Your task to perform on an android device: What's the weather? Image 0: 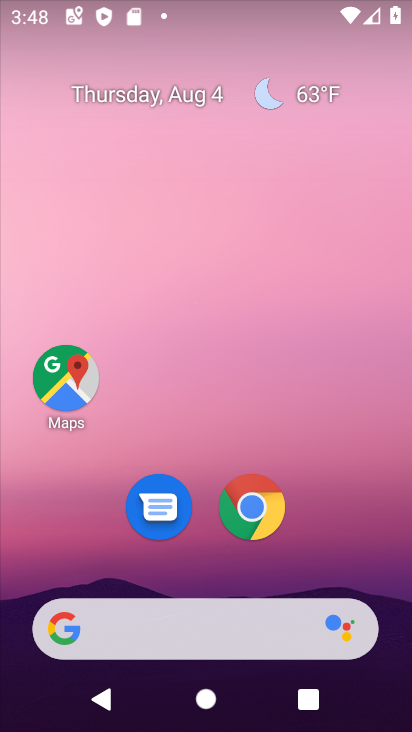
Step 0: click (109, 620)
Your task to perform on an android device: What's the weather? Image 1: 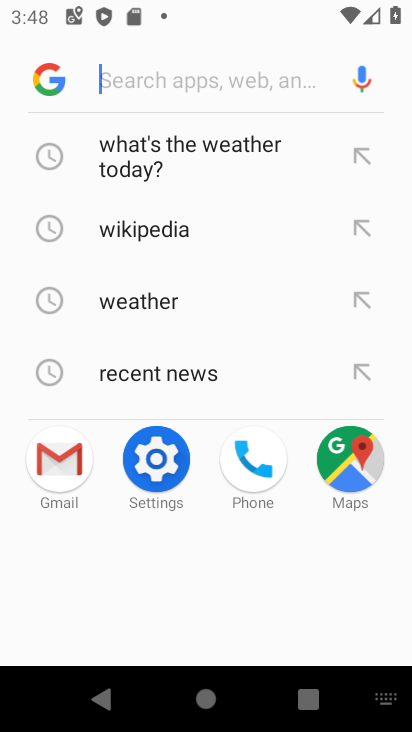
Step 1: type "What's the weather?"
Your task to perform on an android device: What's the weather? Image 2: 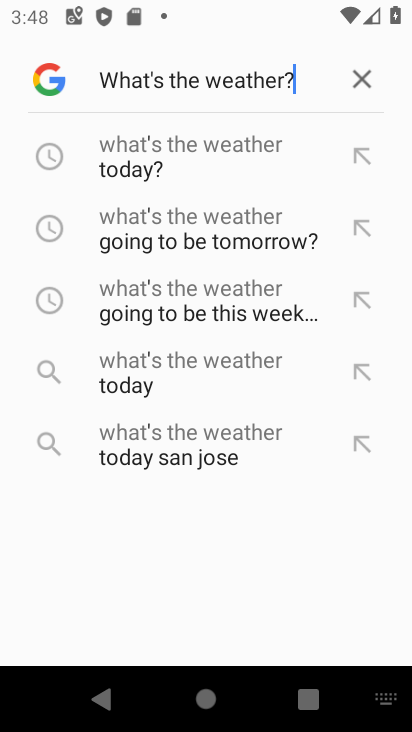
Step 2: type ""
Your task to perform on an android device: What's the weather? Image 3: 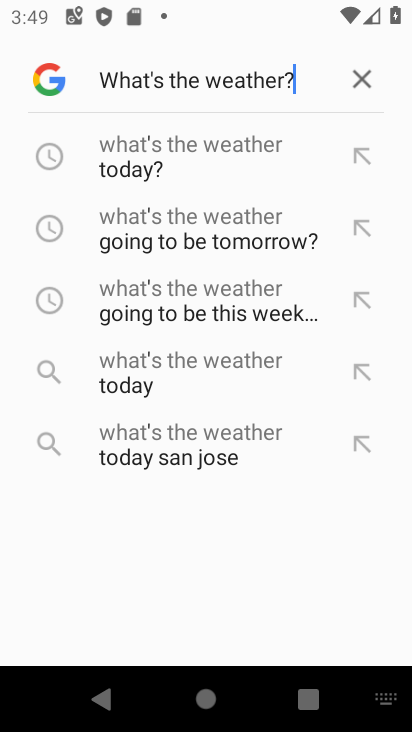
Step 3: task complete